Your task to perform on an android device: Open notification settings Image 0: 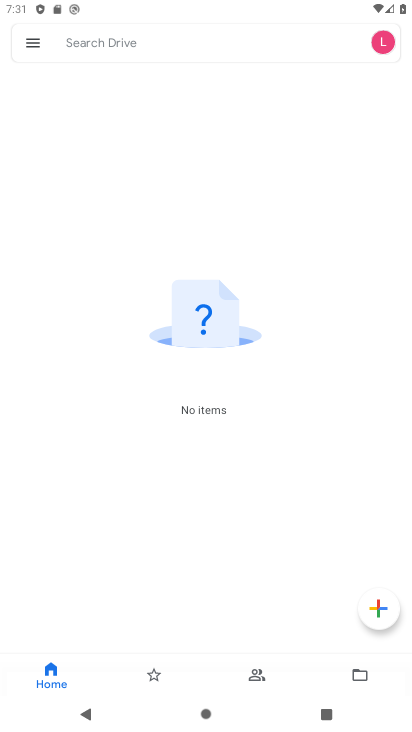
Step 0: press back button
Your task to perform on an android device: Open notification settings Image 1: 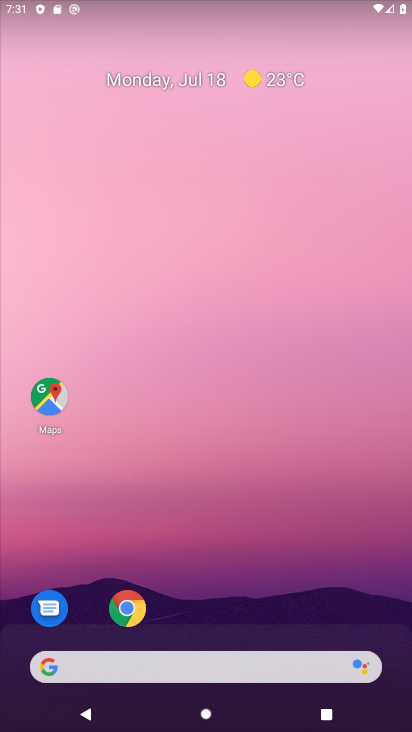
Step 1: drag from (256, 624) to (308, 62)
Your task to perform on an android device: Open notification settings Image 2: 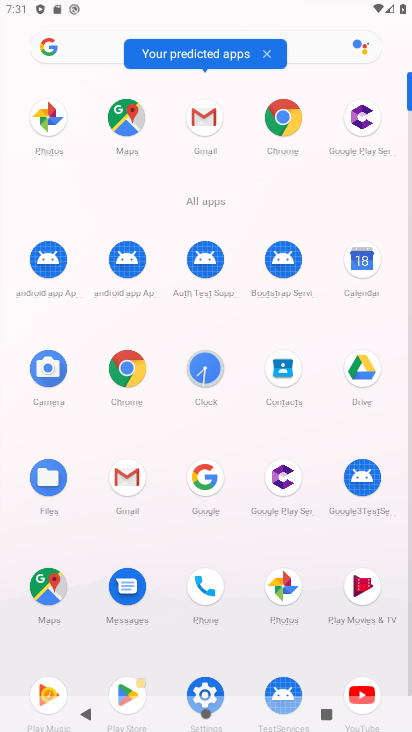
Step 2: click (206, 682)
Your task to perform on an android device: Open notification settings Image 3: 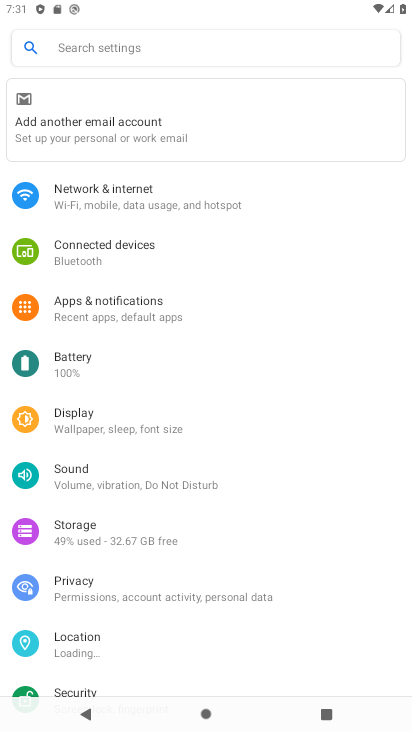
Step 3: click (187, 308)
Your task to perform on an android device: Open notification settings Image 4: 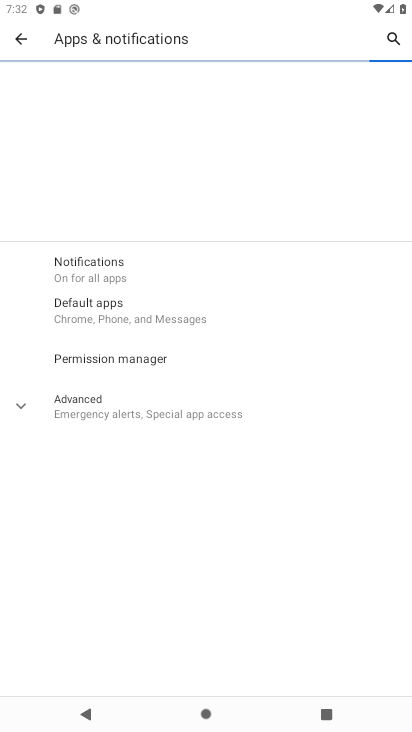
Step 4: task complete